Your task to perform on an android device: What is the speed of a rocket? Image 0: 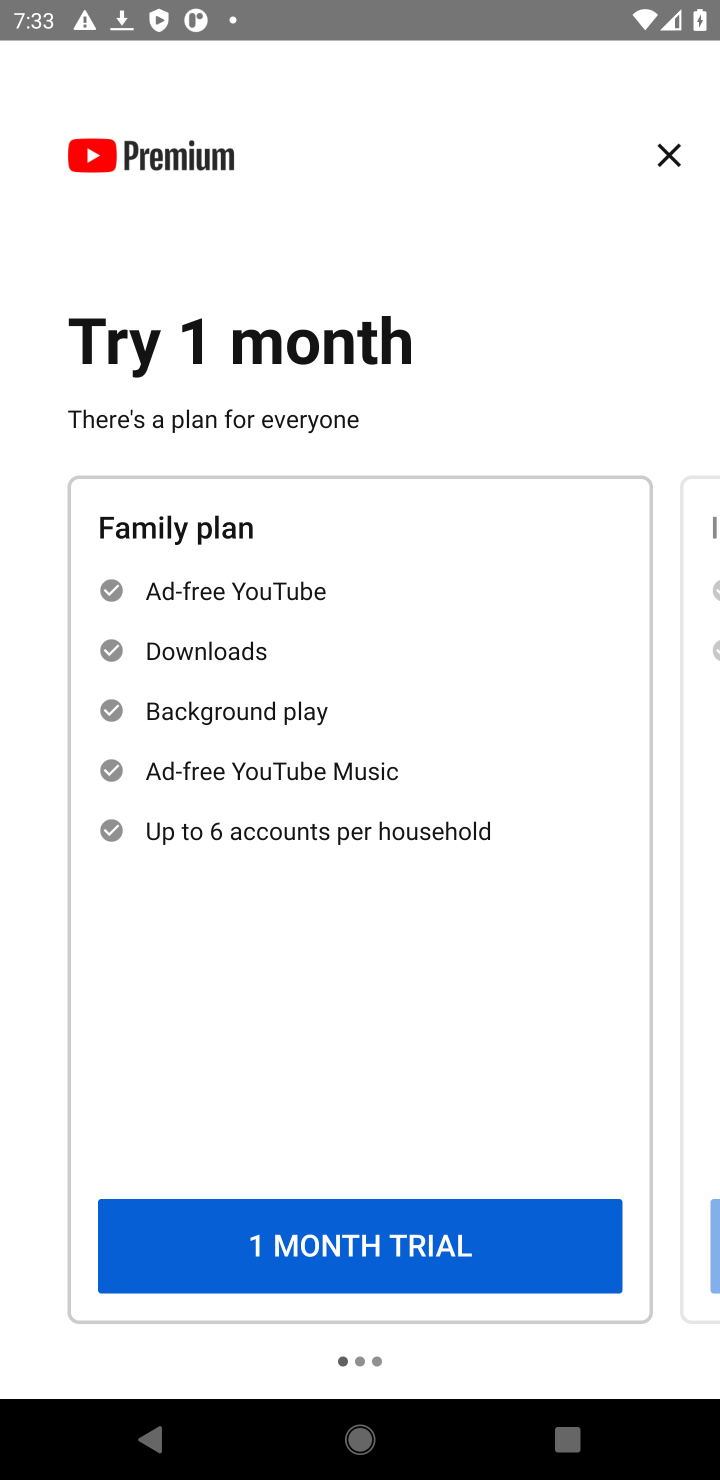
Step 0: press home button
Your task to perform on an android device: What is the speed of a rocket? Image 1: 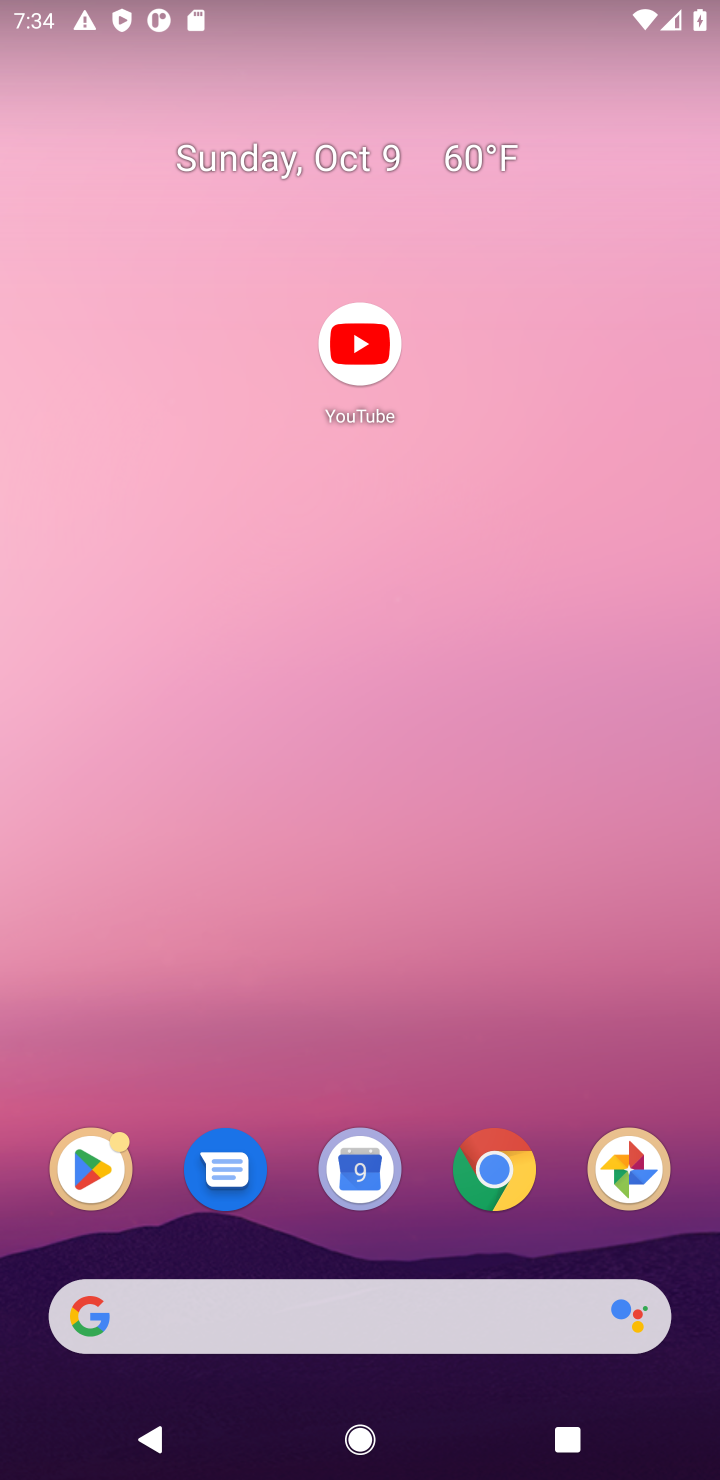
Step 1: drag from (410, 1216) to (430, 100)
Your task to perform on an android device: What is the speed of a rocket? Image 2: 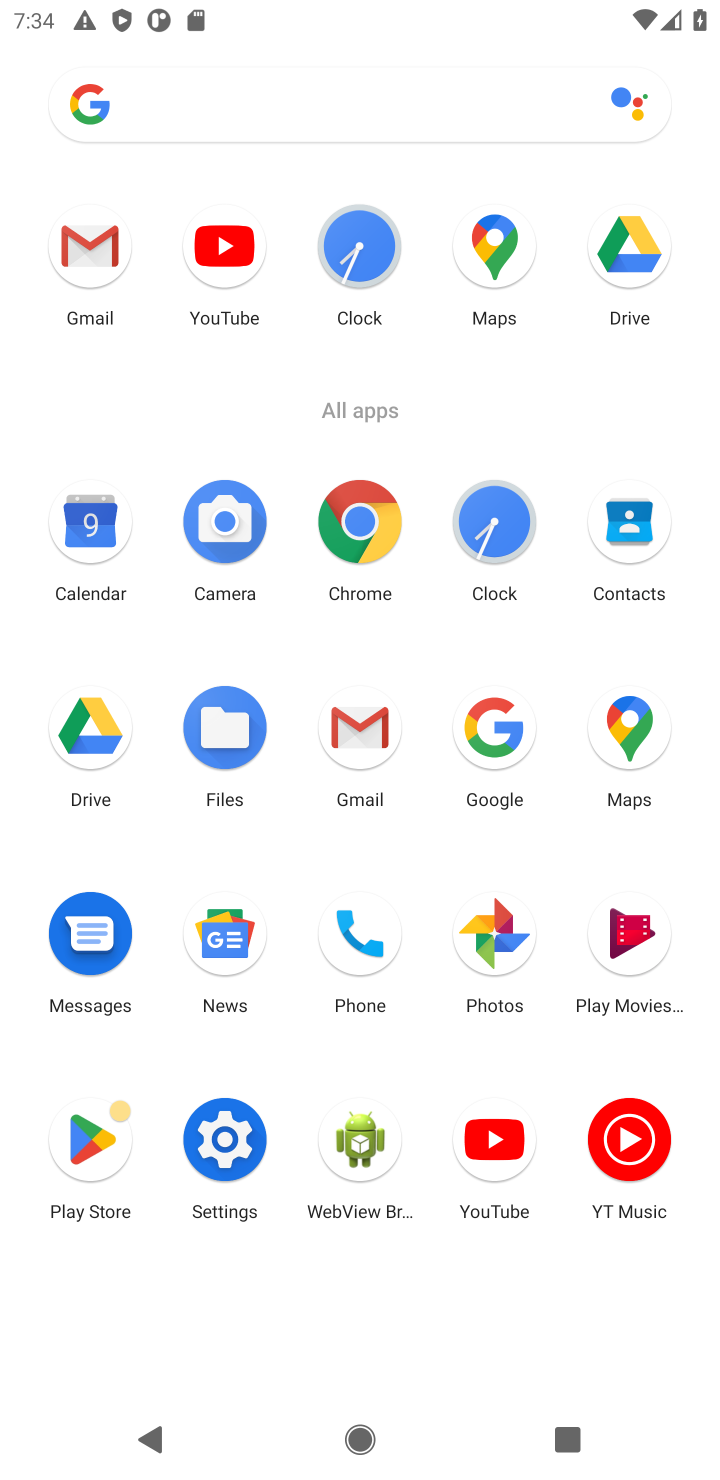
Step 2: click (366, 528)
Your task to perform on an android device: What is the speed of a rocket? Image 3: 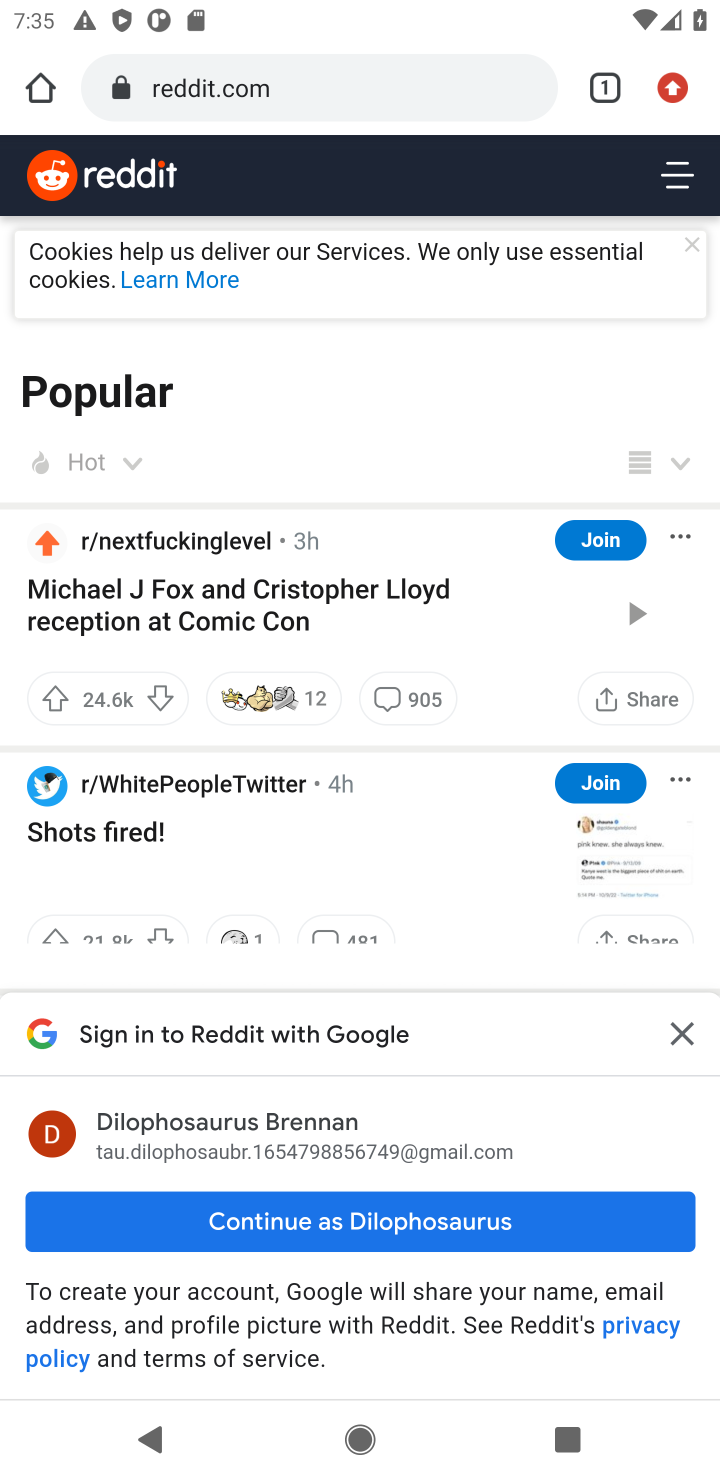
Step 3: click (386, 68)
Your task to perform on an android device: What is the speed of a rocket? Image 4: 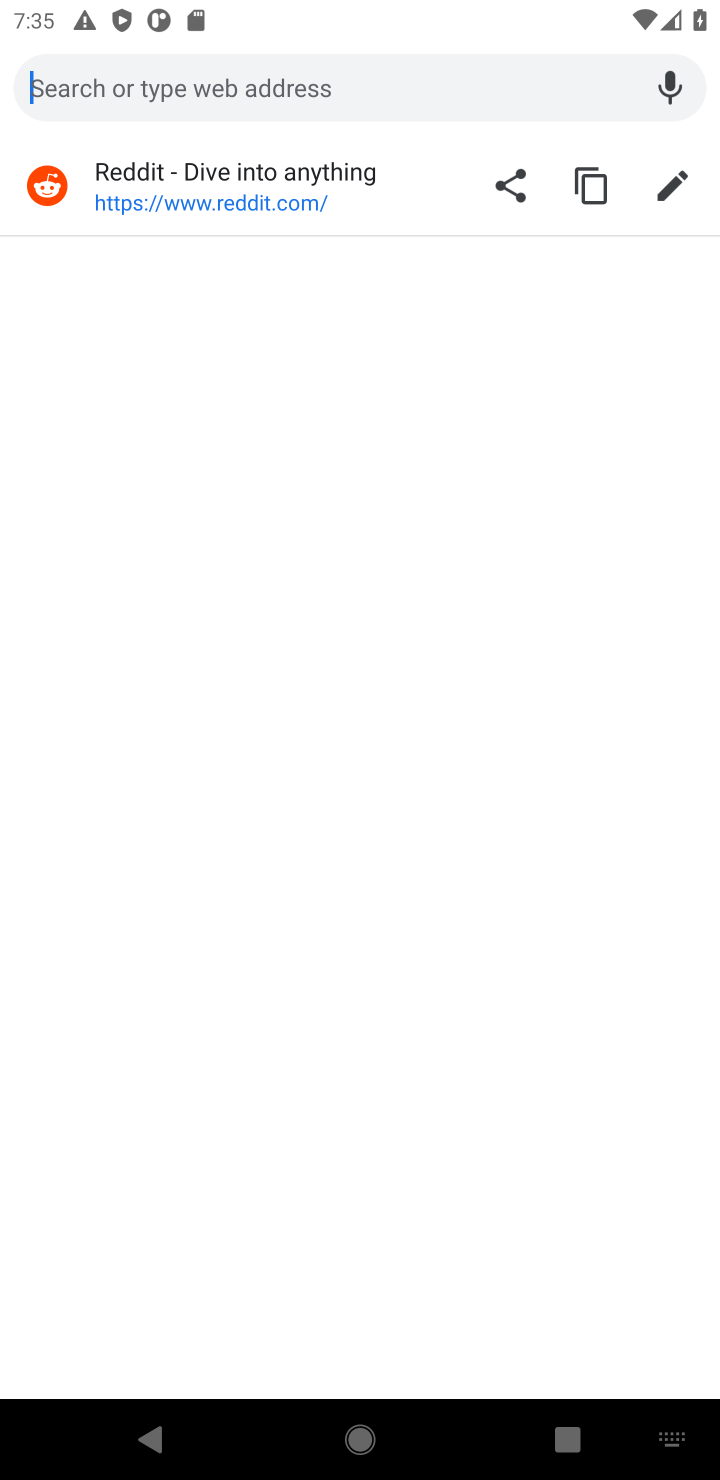
Step 4: type "speed of rocket"
Your task to perform on an android device: What is the speed of a rocket? Image 5: 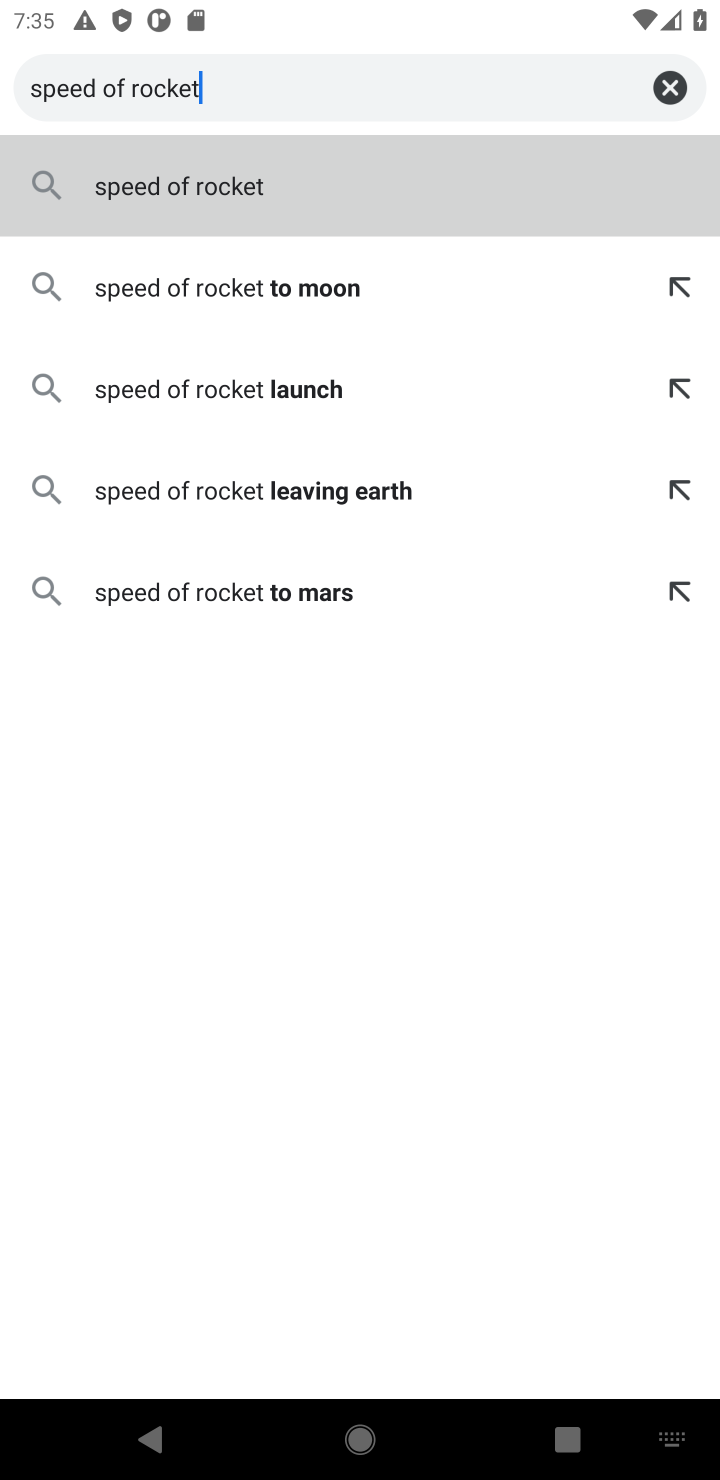
Step 5: press enter
Your task to perform on an android device: What is the speed of a rocket? Image 6: 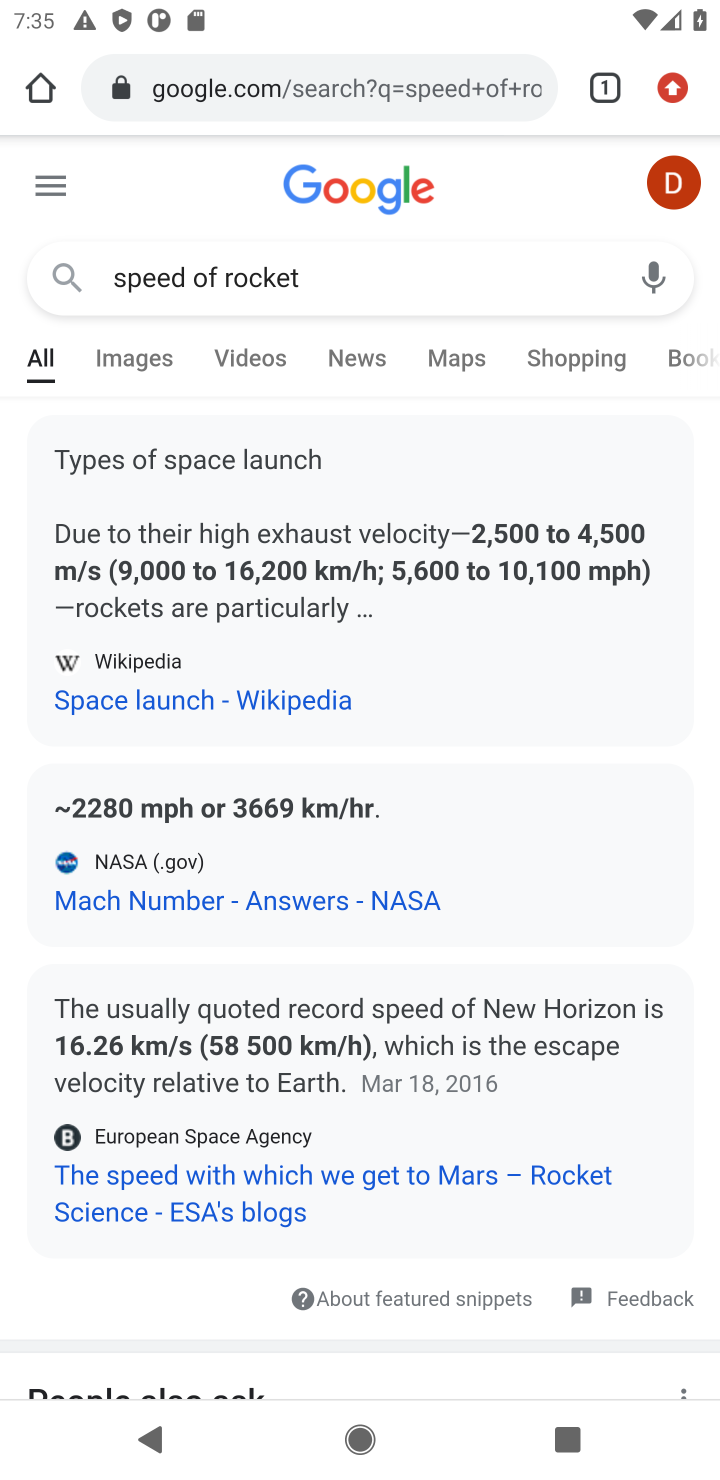
Step 6: task complete